Your task to perform on an android device: Do I have any events this weekend? Image 0: 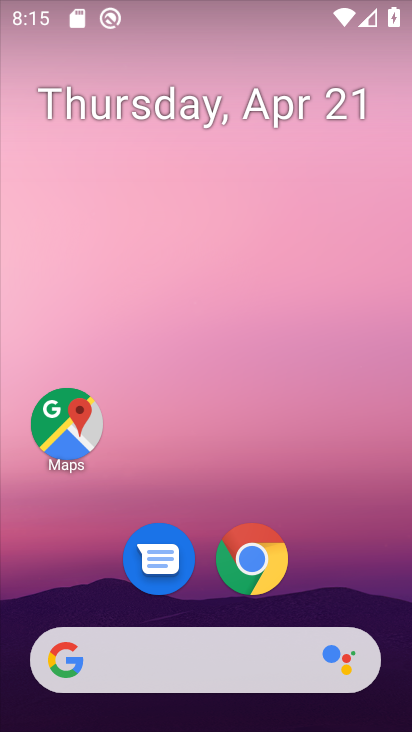
Step 0: drag from (349, 511) to (298, 208)
Your task to perform on an android device: Do I have any events this weekend? Image 1: 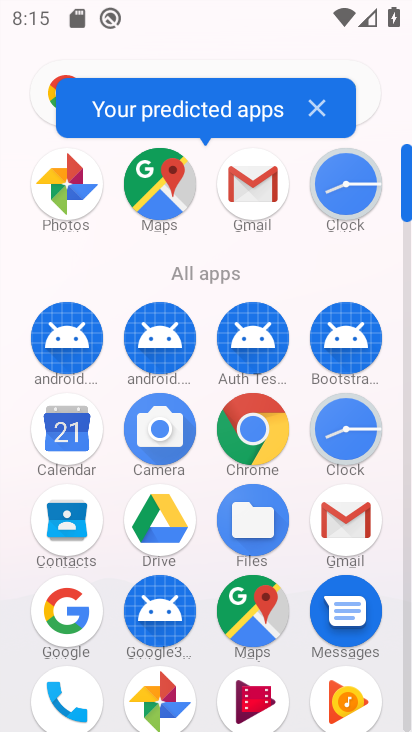
Step 1: click (77, 451)
Your task to perform on an android device: Do I have any events this weekend? Image 2: 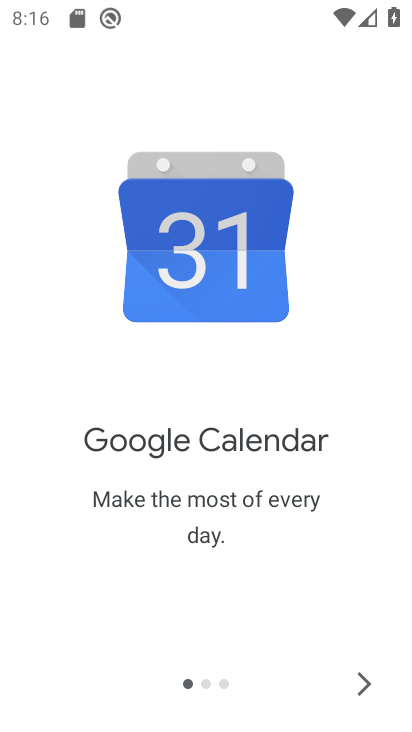
Step 2: click (352, 678)
Your task to perform on an android device: Do I have any events this weekend? Image 3: 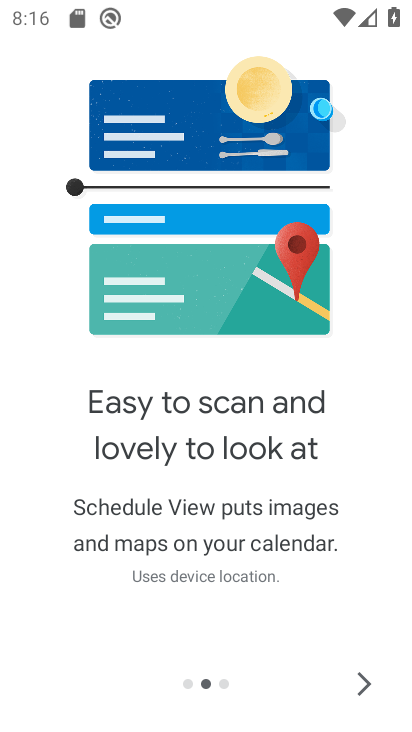
Step 3: click (359, 688)
Your task to perform on an android device: Do I have any events this weekend? Image 4: 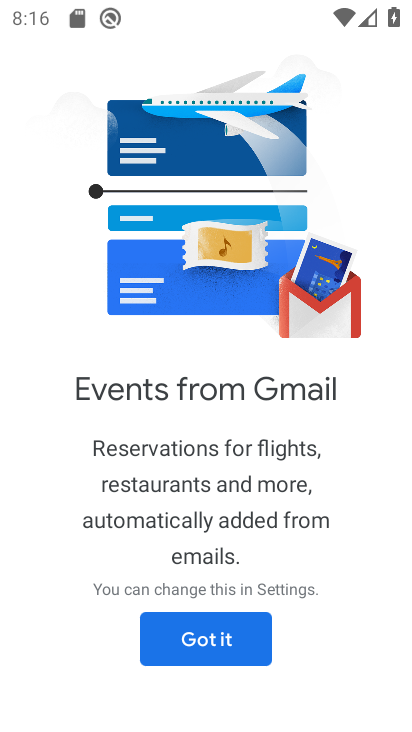
Step 4: click (225, 640)
Your task to perform on an android device: Do I have any events this weekend? Image 5: 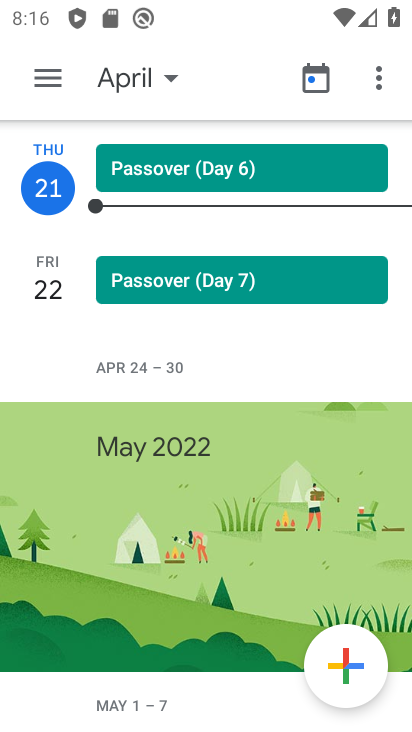
Step 5: click (151, 97)
Your task to perform on an android device: Do I have any events this weekend? Image 6: 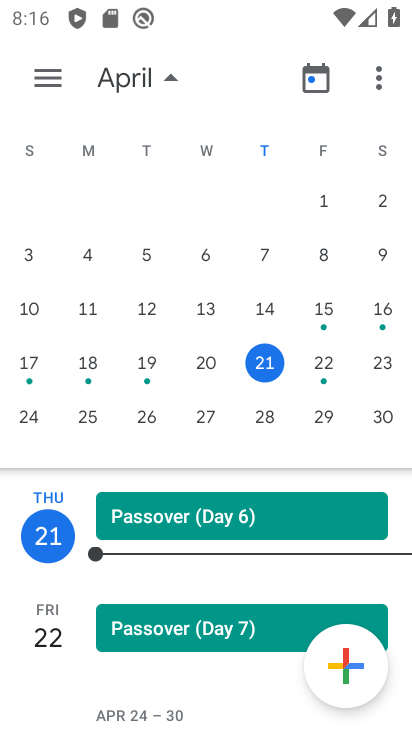
Step 6: click (318, 358)
Your task to perform on an android device: Do I have any events this weekend? Image 7: 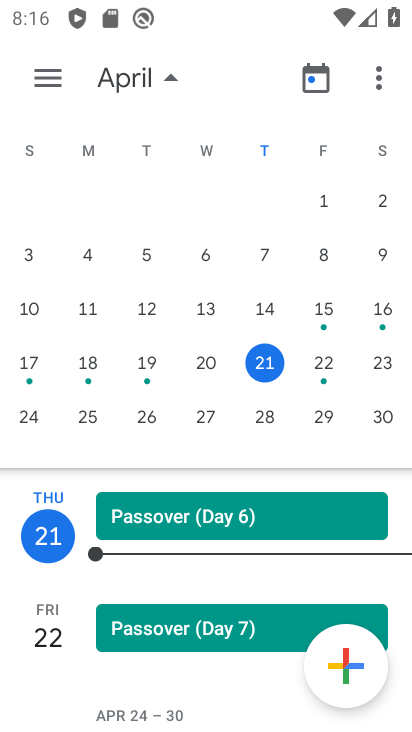
Step 7: click (321, 369)
Your task to perform on an android device: Do I have any events this weekend? Image 8: 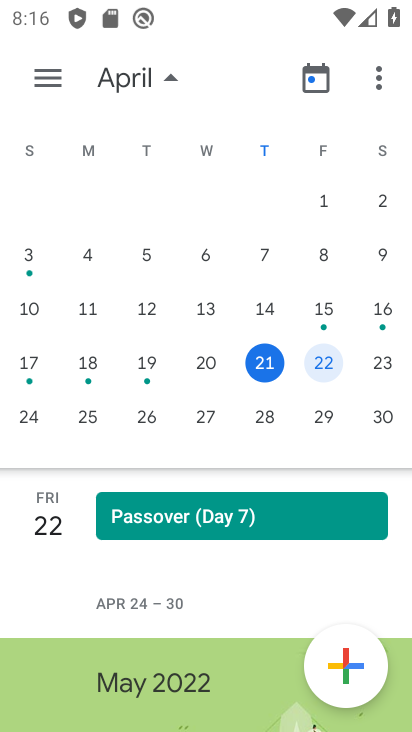
Step 8: click (392, 377)
Your task to perform on an android device: Do I have any events this weekend? Image 9: 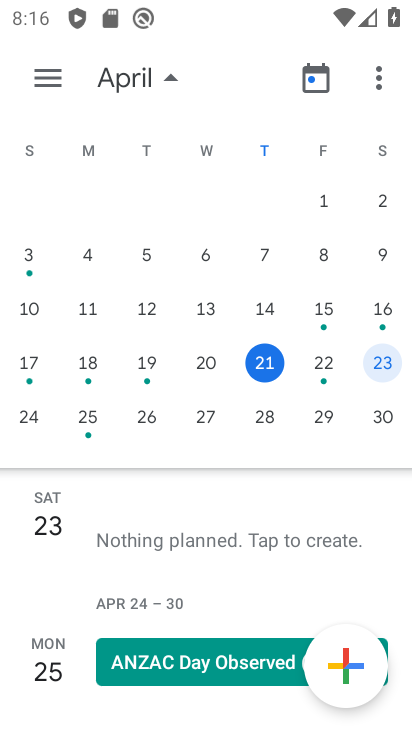
Step 9: click (36, 428)
Your task to perform on an android device: Do I have any events this weekend? Image 10: 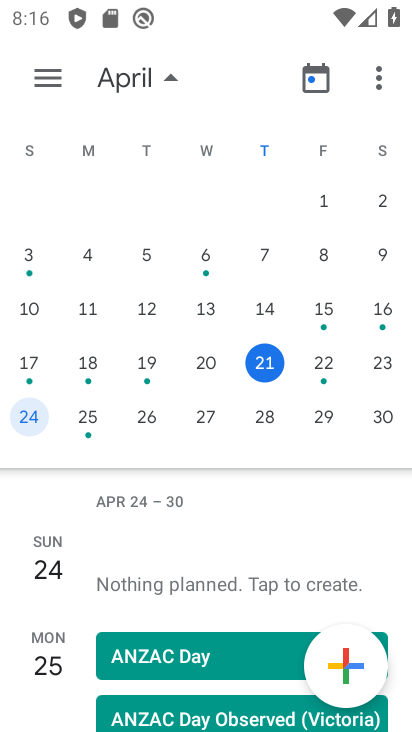
Step 10: task complete